Your task to perform on an android device: set default search engine in the chrome app Image 0: 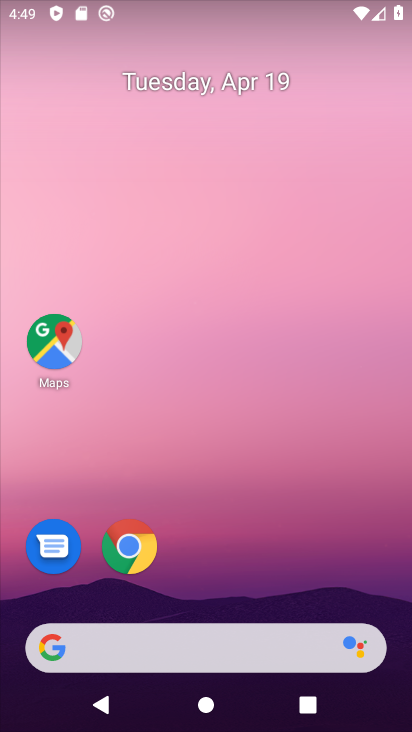
Step 0: drag from (241, 488) to (264, 10)
Your task to perform on an android device: set default search engine in the chrome app Image 1: 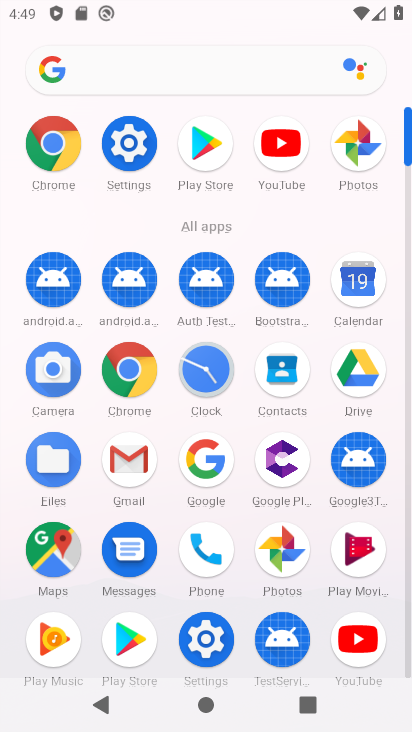
Step 1: click (62, 147)
Your task to perform on an android device: set default search engine in the chrome app Image 2: 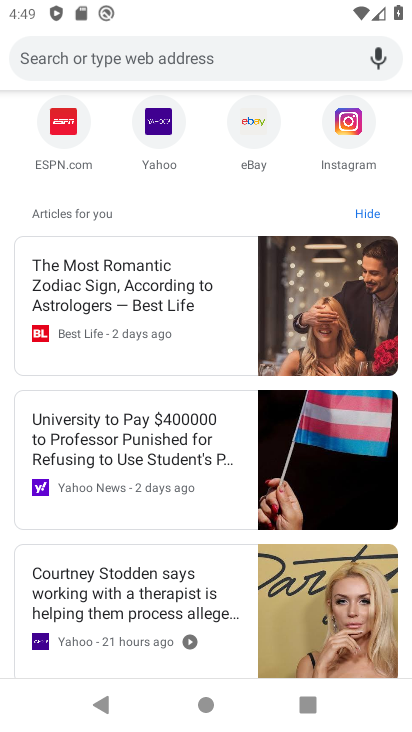
Step 2: drag from (248, 269) to (155, 647)
Your task to perform on an android device: set default search engine in the chrome app Image 3: 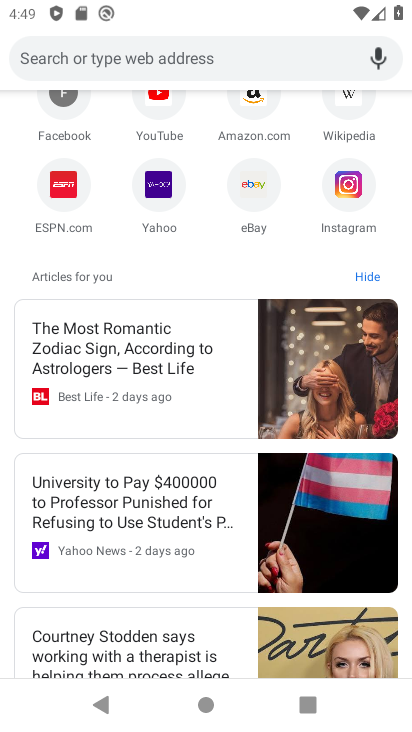
Step 3: drag from (179, 351) to (149, 622)
Your task to perform on an android device: set default search engine in the chrome app Image 4: 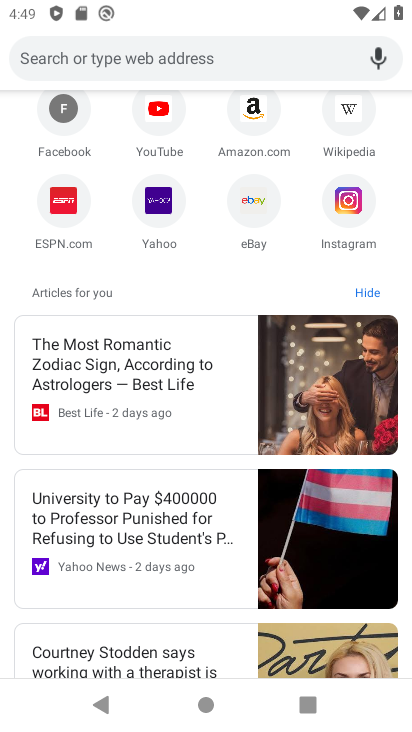
Step 4: drag from (225, 97) to (126, 595)
Your task to perform on an android device: set default search engine in the chrome app Image 5: 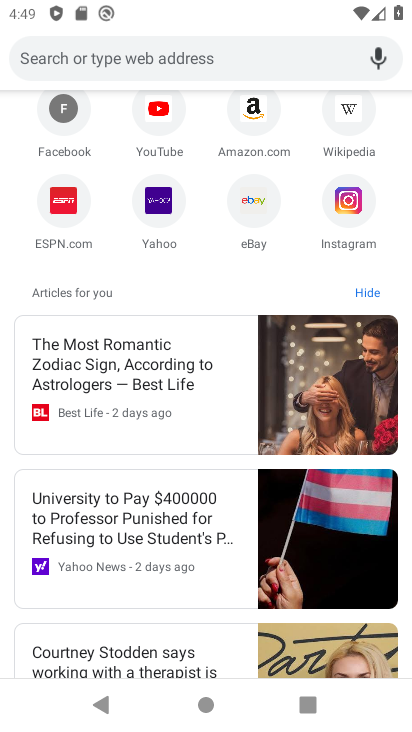
Step 5: drag from (210, 142) to (124, 592)
Your task to perform on an android device: set default search engine in the chrome app Image 6: 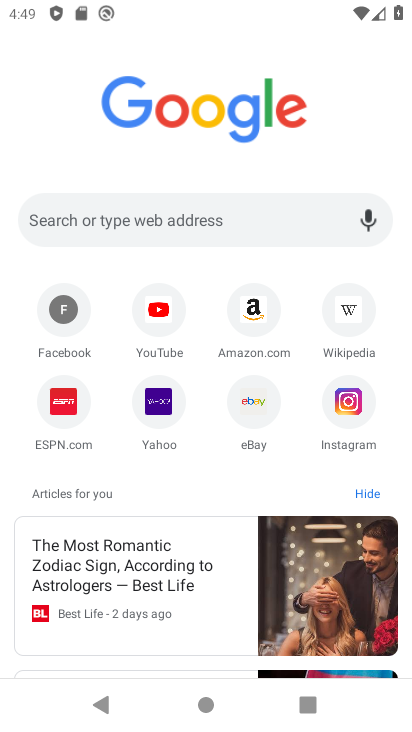
Step 6: drag from (265, 161) to (203, 539)
Your task to perform on an android device: set default search engine in the chrome app Image 7: 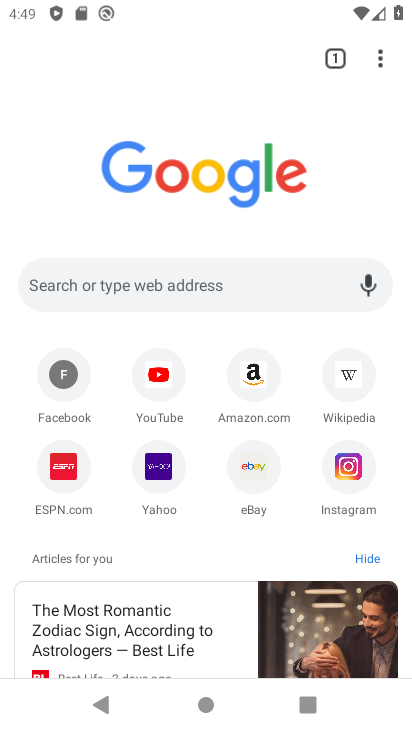
Step 7: drag from (387, 45) to (133, 488)
Your task to perform on an android device: set default search engine in the chrome app Image 8: 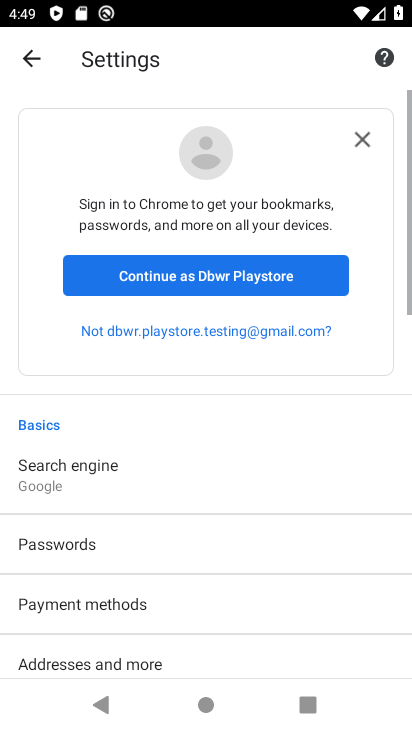
Step 8: click (110, 486)
Your task to perform on an android device: set default search engine in the chrome app Image 9: 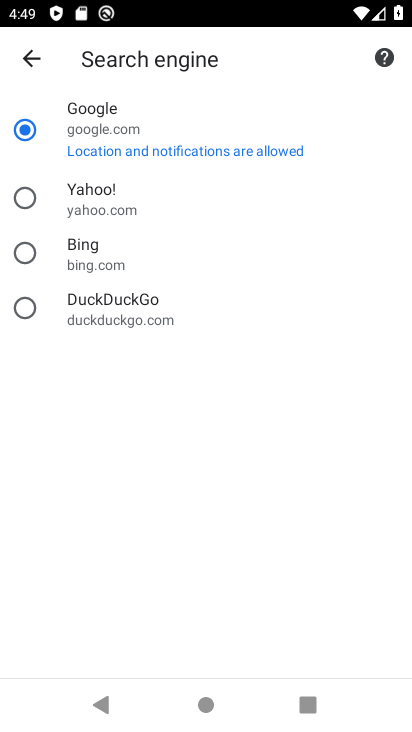
Step 9: task complete